Your task to perform on an android device: Open Youtube and go to "Your channel" Image 0: 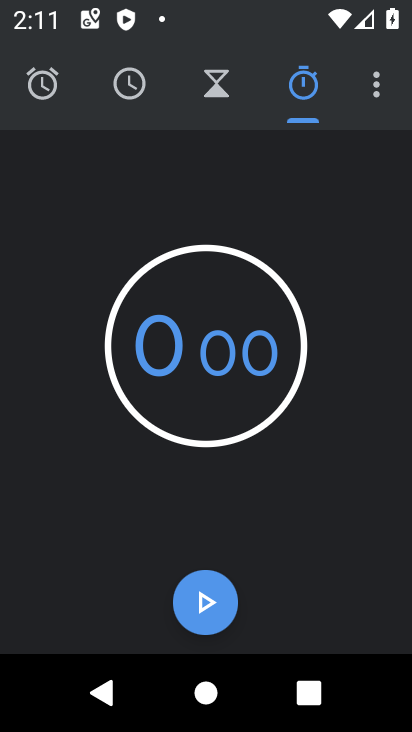
Step 0: press back button
Your task to perform on an android device: Open Youtube and go to "Your channel" Image 1: 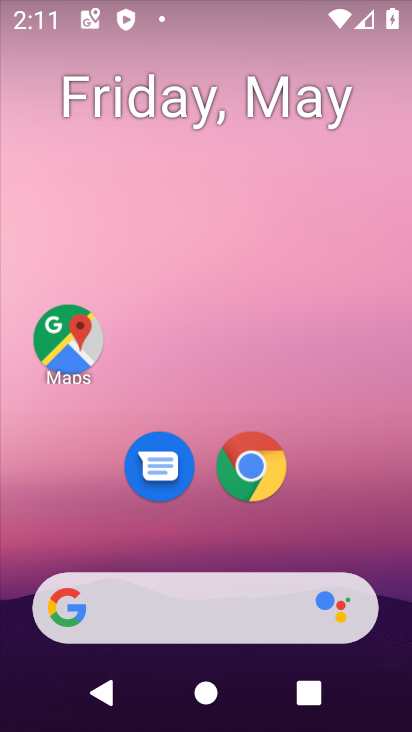
Step 1: drag from (228, 413) to (277, 65)
Your task to perform on an android device: Open Youtube and go to "Your channel" Image 2: 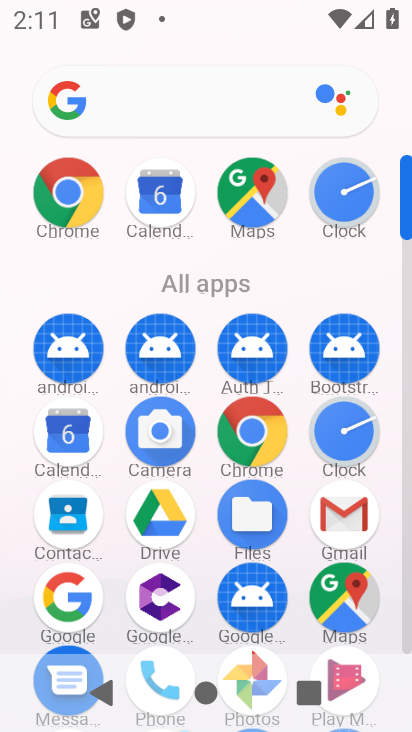
Step 2: drag from (176, 558) to (267, 80)
Your task to perform on an android device: Open Youtube and go to "Your channel" Image 3: 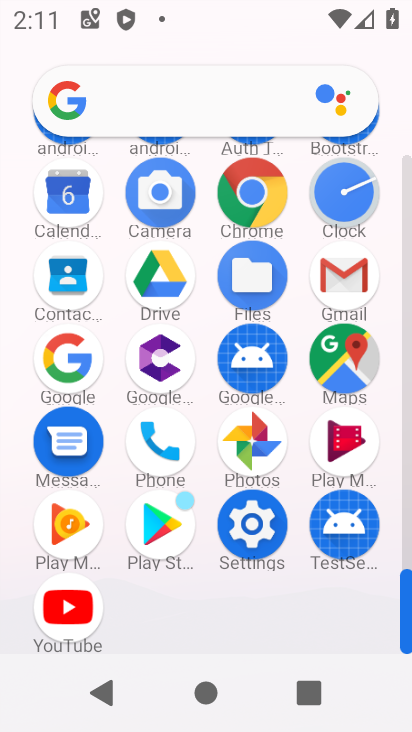
Step 3: click (64, 616)
Your task to perform on an android device: Open Youtube and go to "Your channel" Image 4: 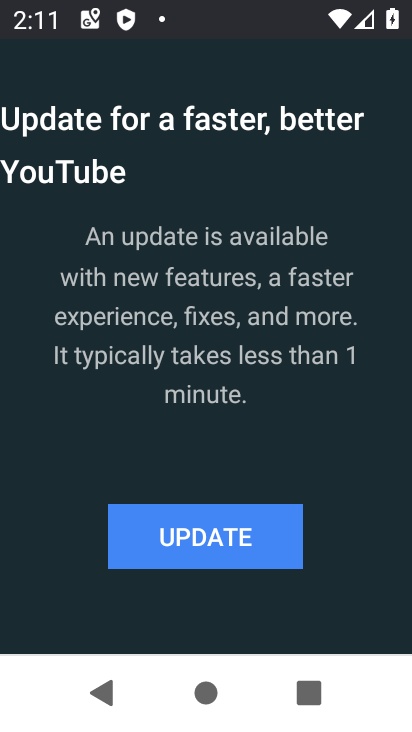
Step 4: drag from (202, 548) to (100, 548)
Your task to perform on an android device: Open Youtube and go to "Your channel" Image 5: 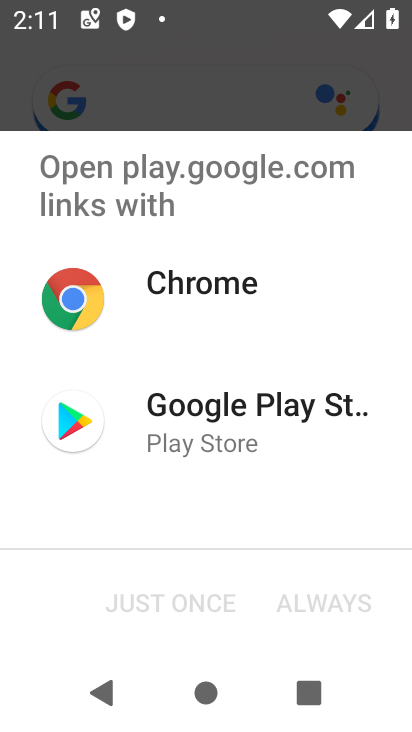
Step 5: click (174, 407)
Your task to perform on an android device: Open Youtube and go to "Your channel" Image 6: 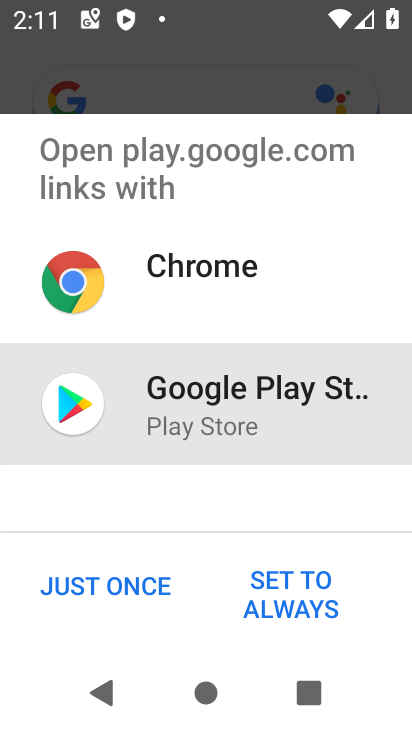
Step 6: click (125, 580)
Your task to perform on an android device: Open Youtube and go to "Your channel" Image 7: 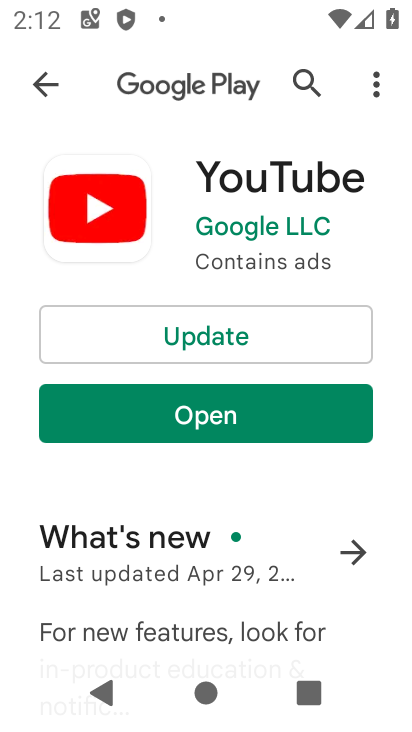
Step 7: click (187, 329)
Your task to perform on an android device: Open Youtube and go to "Your channel" Image 8: 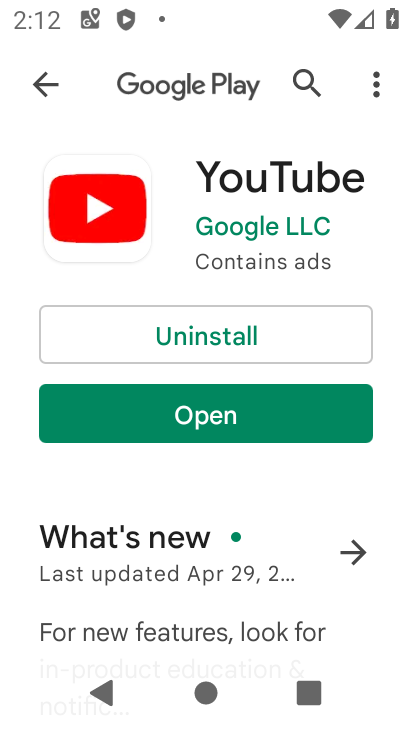
Step 8: click (239, 442)
Your task to perform on an android device: Open Youtube and go to "Your channel" Image 9: 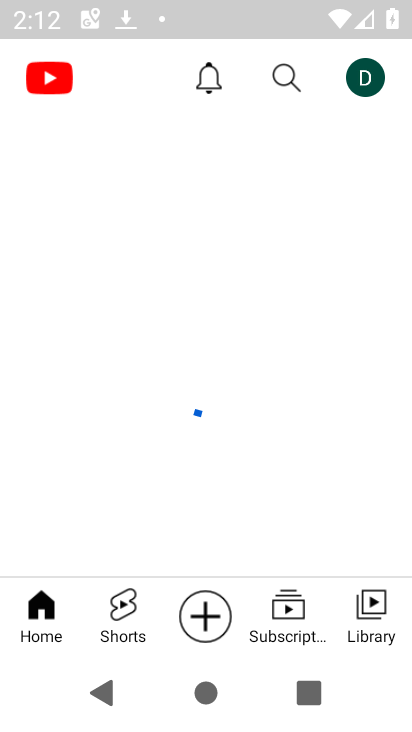
Step 9: click (377, 73)
Your task to perform on an android device: Open Youtube and go to "Your channel" Image 10: 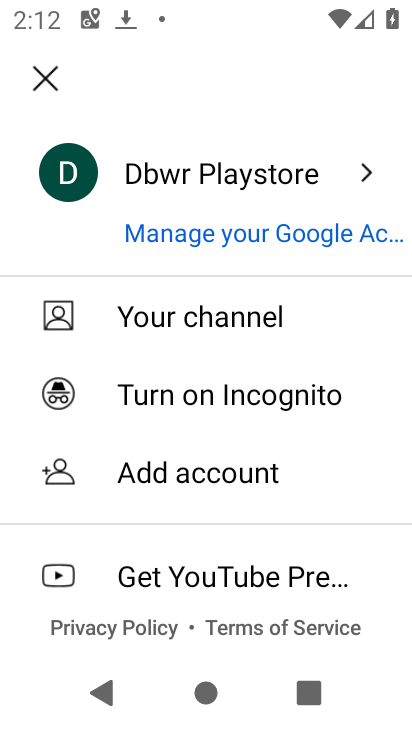
Step 10: click (143, 303)
Your task to perform on an android device: Open Youtube and go to "Your channel" Image 11: 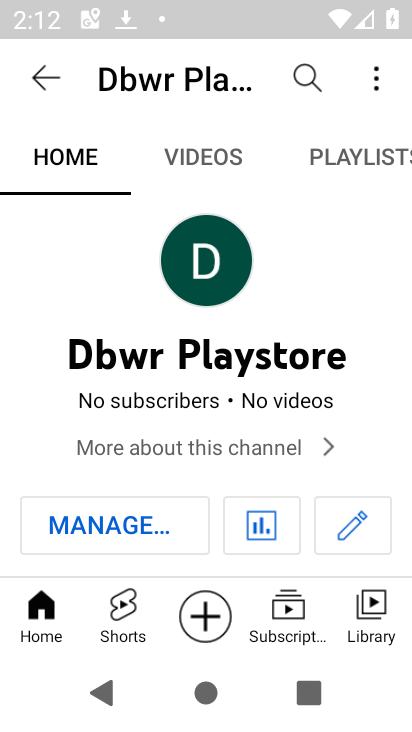
Step 11: task complete